Your task to perform on an android device: Open Yahoo.com Image 0: 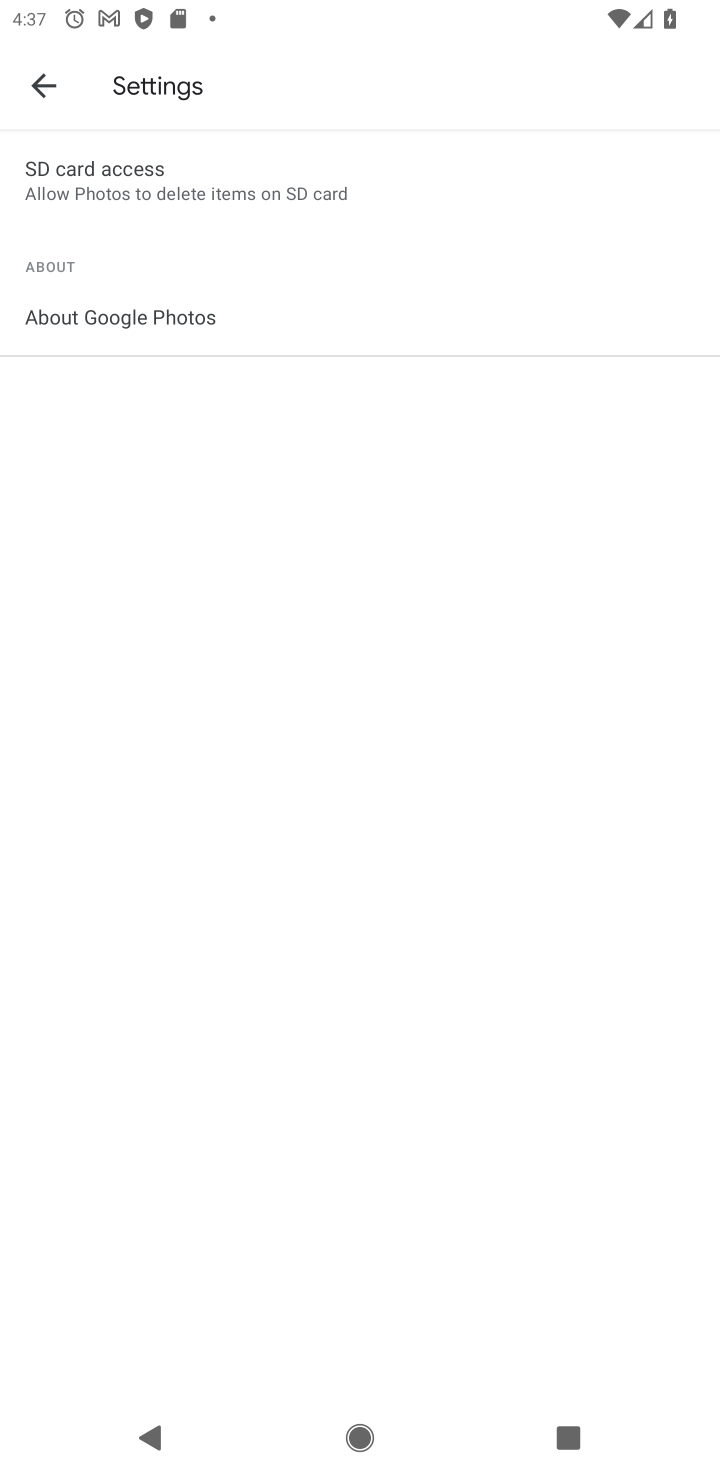
Step 0: press home button
Your task to perform on an android device: Open Yahoo.com Image 1: 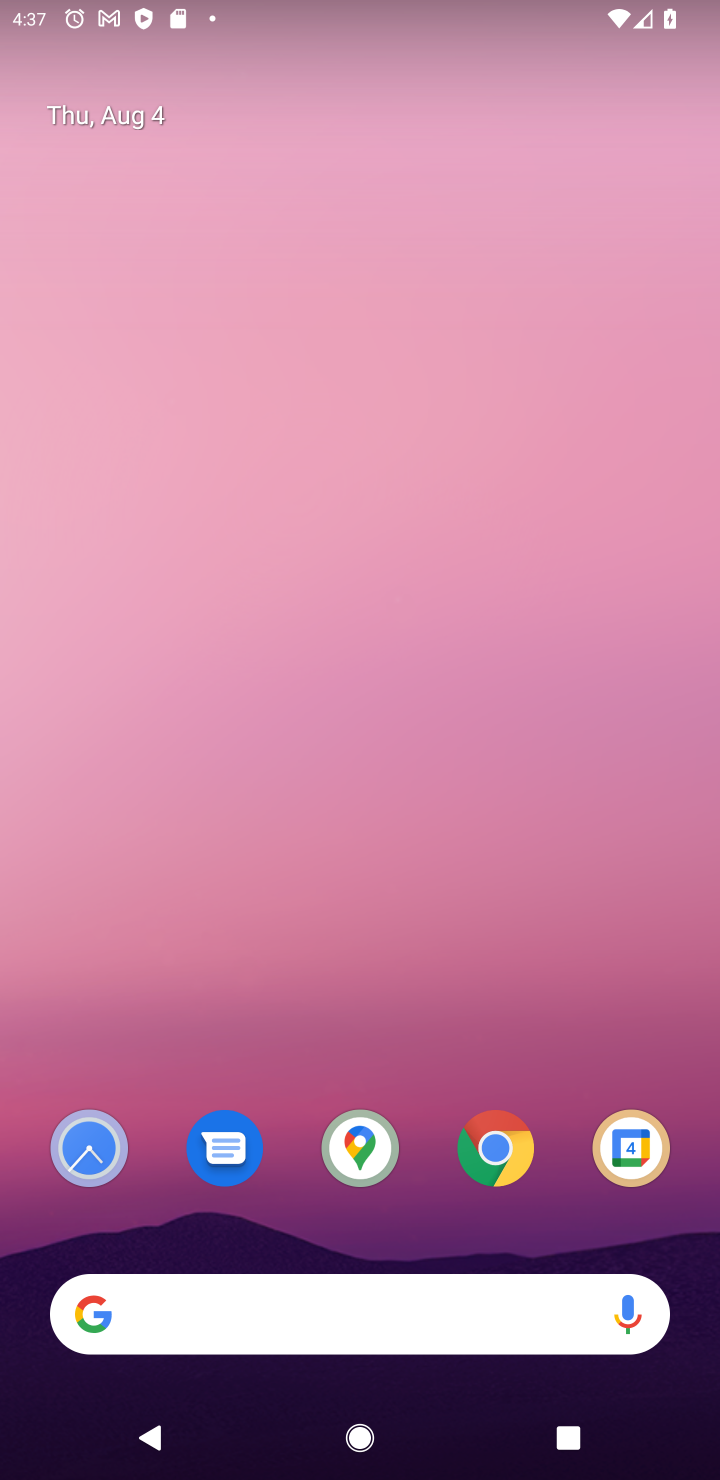
Step 1: click (494, 1149)
Your task to perform on an android device: Open Yahoo.com Image 2: 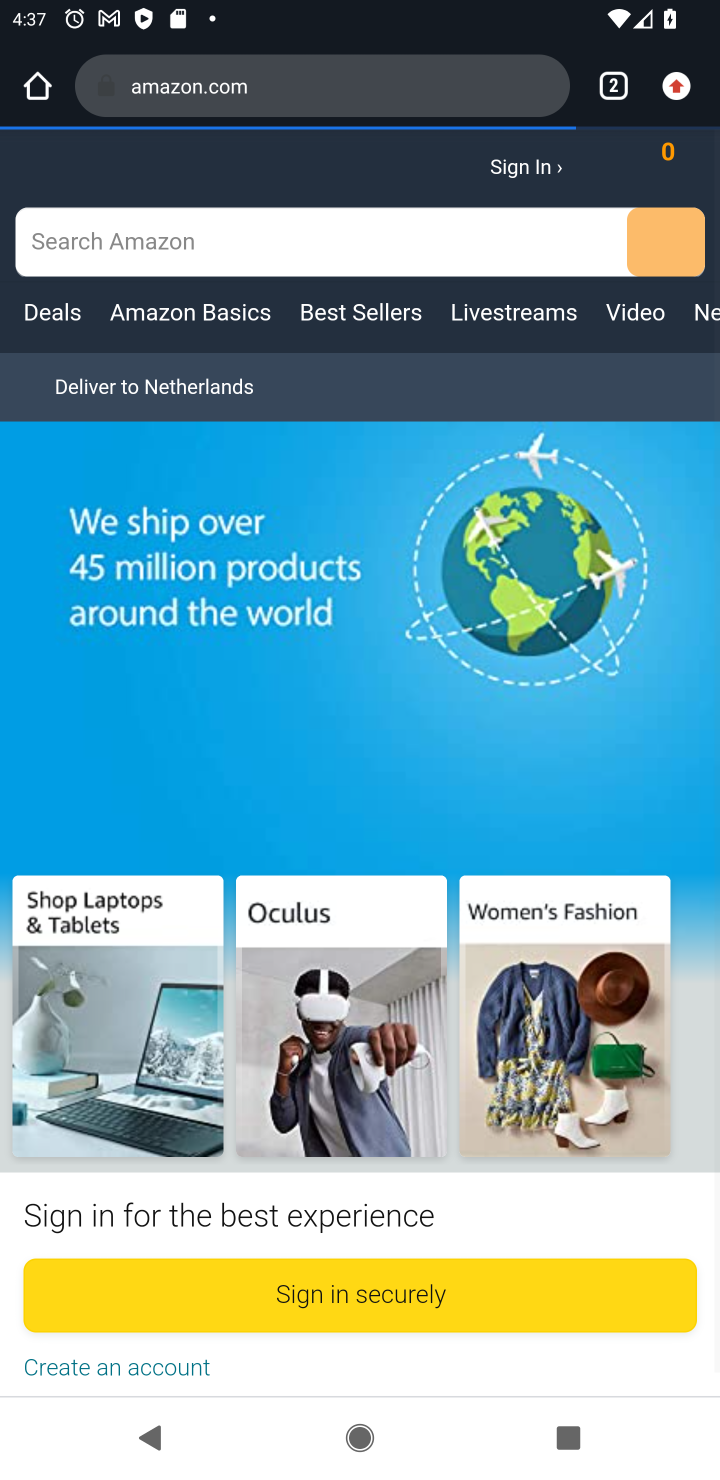
Step 2: click (323, 80)
Your task to perform on an android device: Open Yahoo.com Image 3: 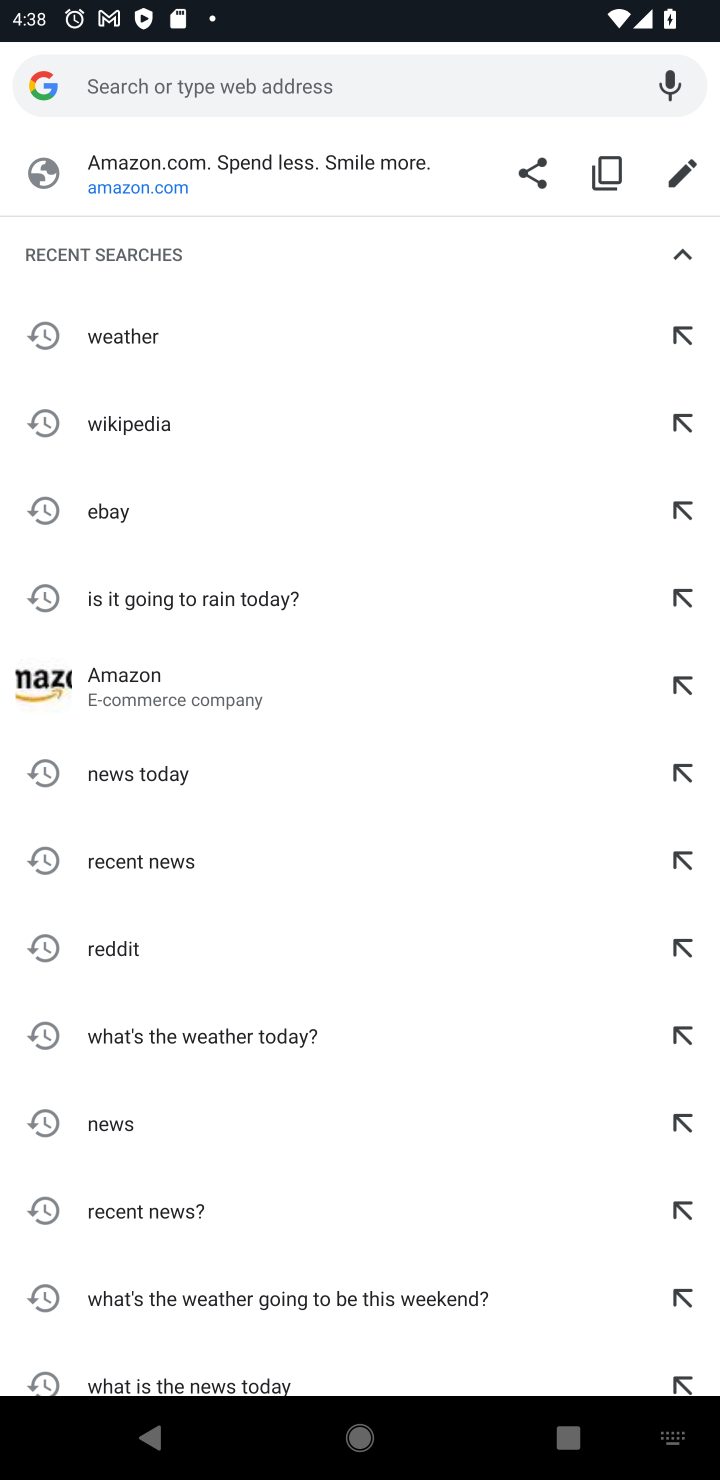
Step 3: type "yahoo.com"
Your task to perform on an android device: Open Yahoo.com Image 4: 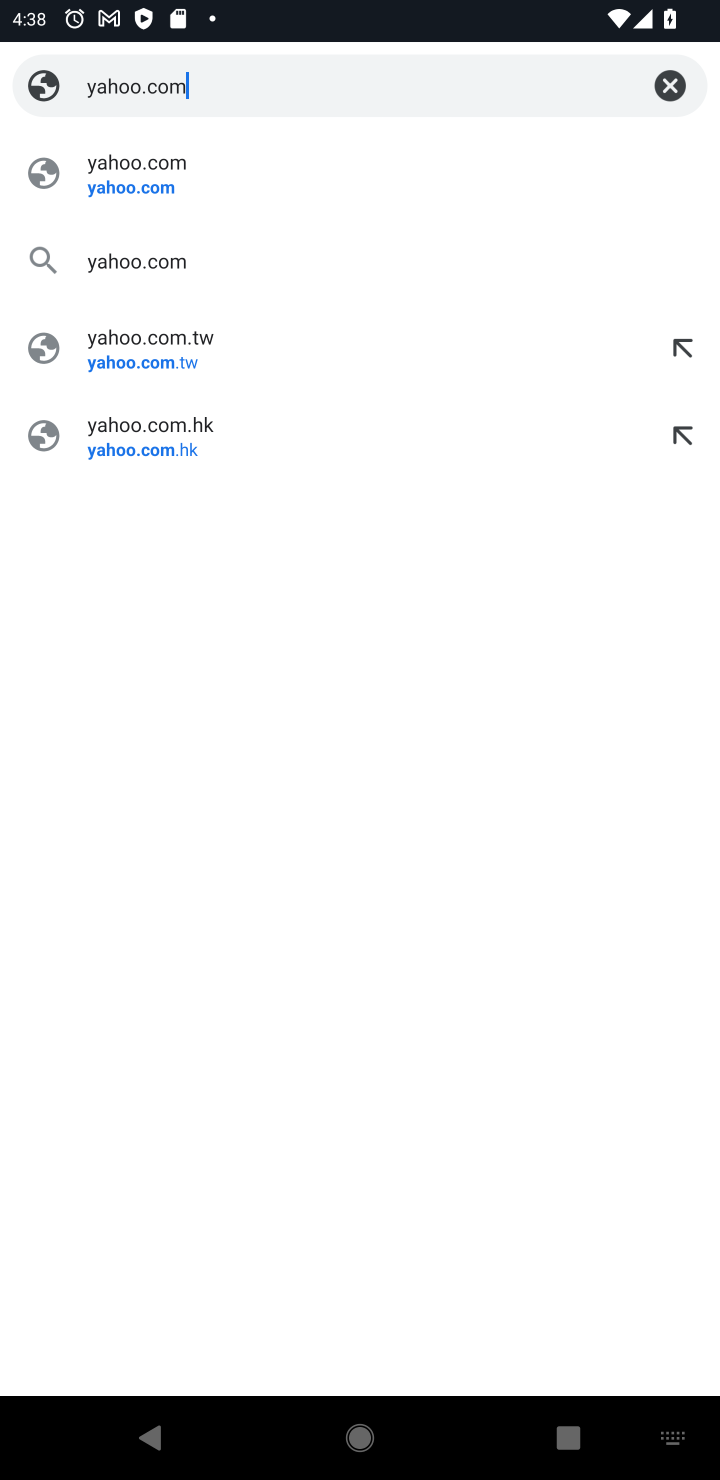
Step 4: click (119, 154)
Your task to perform on an android device: Open Yahoo.com Image 5: 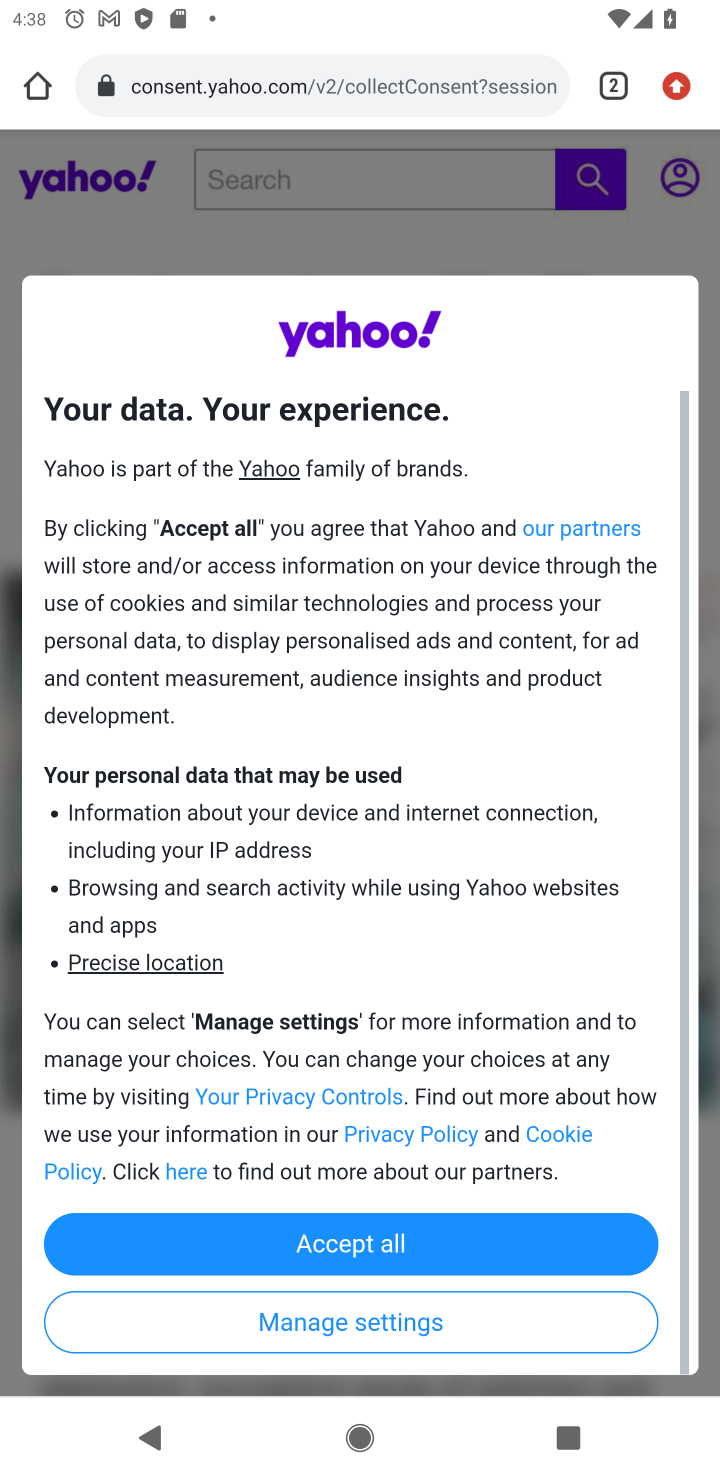
Step 5: click (360, 1239)
Your task to perform on an android device: Open Yahoo.com Image 6: 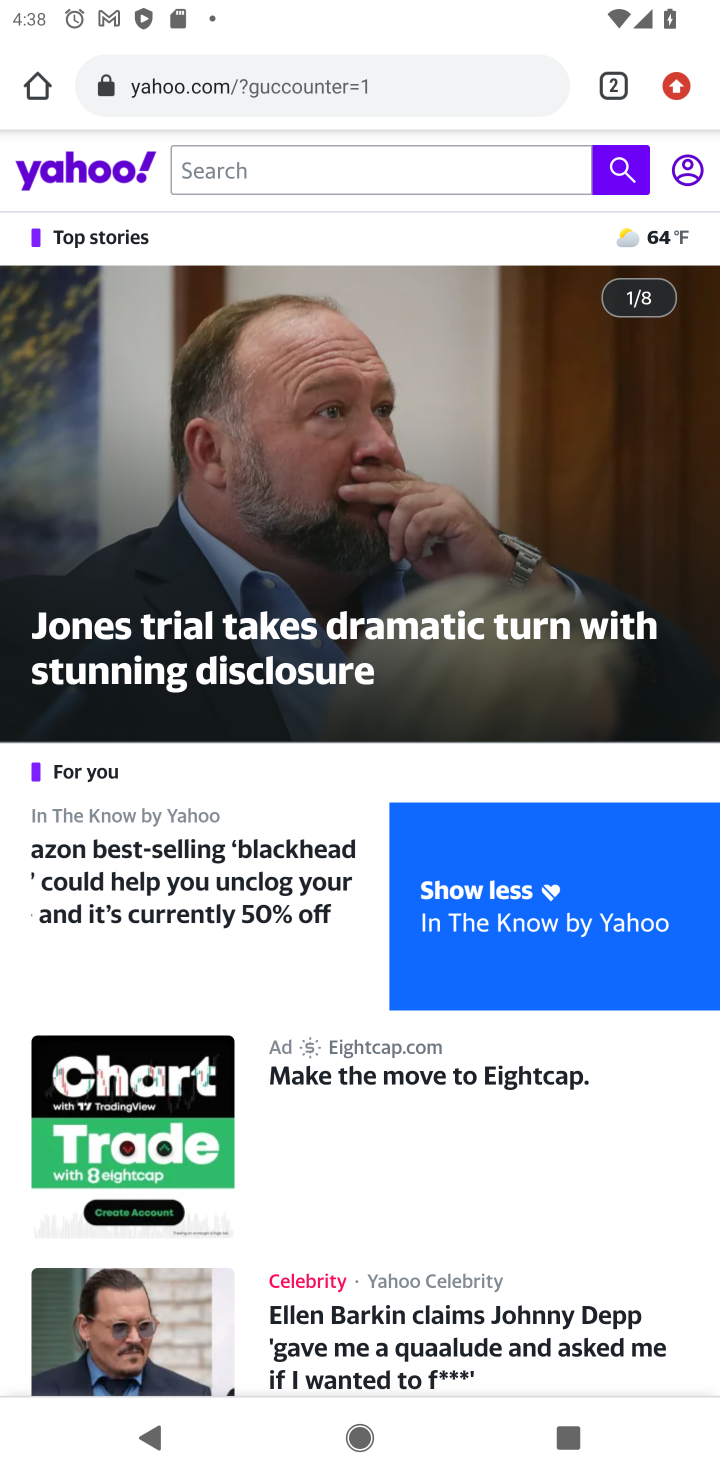
Step 6: task complete